Your task to perform on an android device: Do I have any events tomorrow? Image 0: 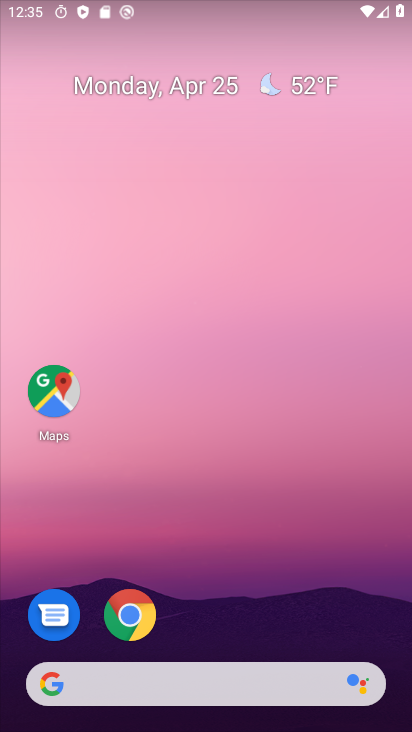
Step 0: drag from (223, 650) to (205, 4)
Your task to perform on an android device: Do I have any events tomorrow? Image 1: 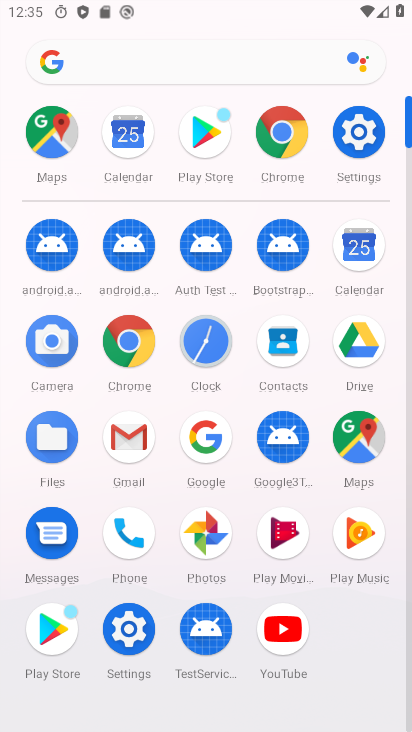
Step 1: click (358, 258)
Your task to perform on an android device: Do I have any events tomorrow? Image 2: 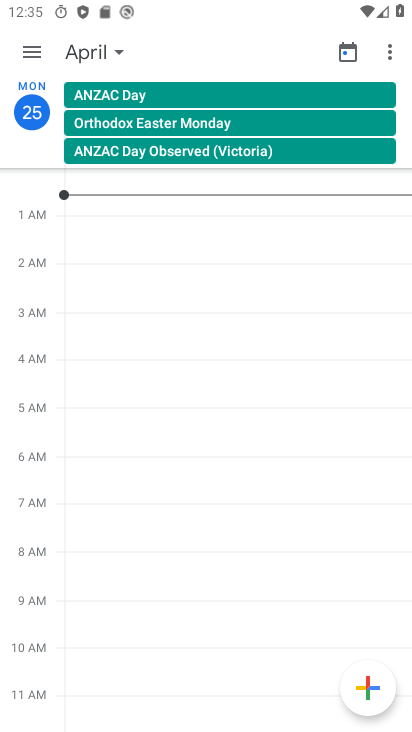
Step 2: click (24, 41)
Your task to perform on an android device: Do I have any events tomorrow? Image 3: 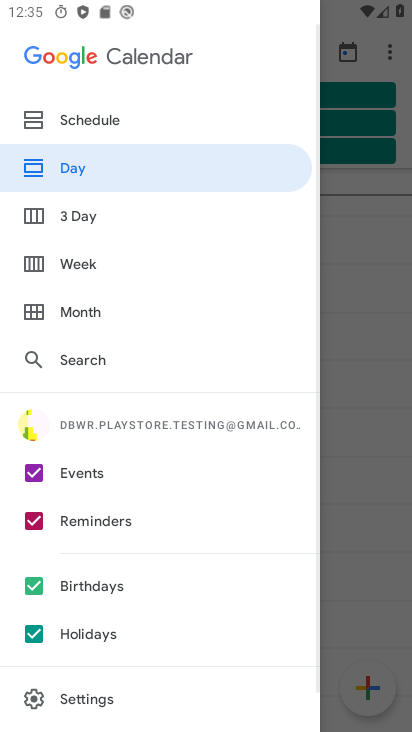
Step 3: click (80, 218)
Your task to perform on an android device: Do I have any events tomorrow? Image 4: 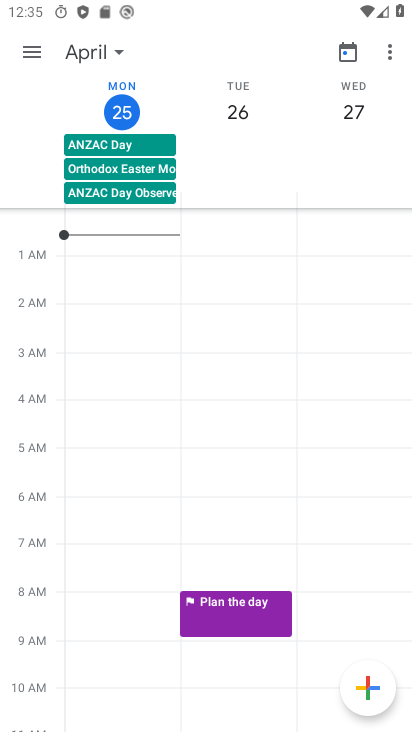
Step 4: click (248, 93)
Your task to perform on an android device: Do I have any events tomorrow? Image 5: 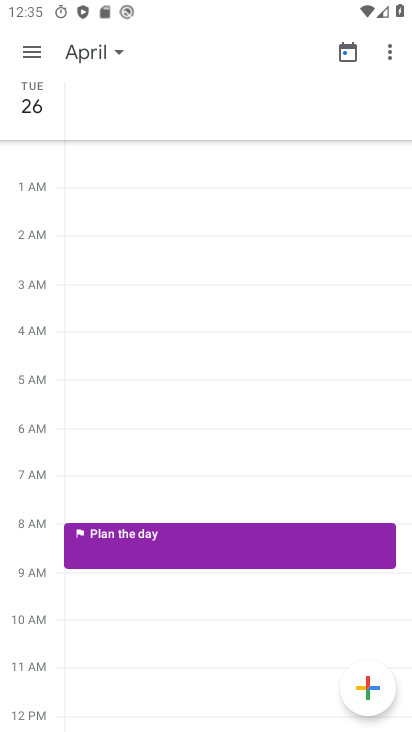
Step 5: task complete